Your task to perform on an android device: Go to privacy settings Image 0: 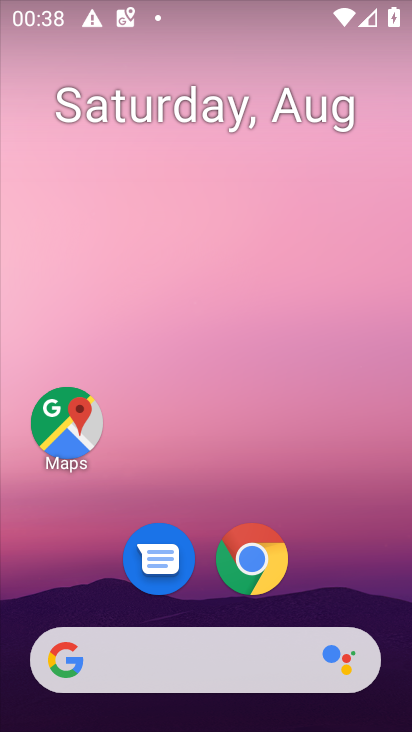
Step 0: drag from (371, 609) to (258, 42)
Your task to perform on an android device: Go to privacy settings Image 1: 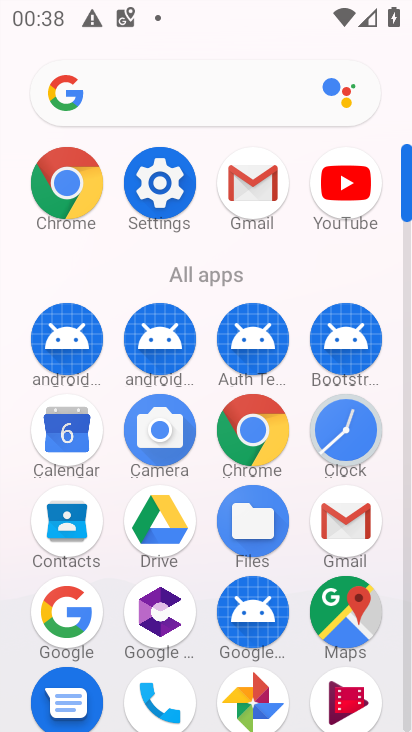
Step 1: click (155, 197)
Your task to perform on an android device: Go to privacy settings Image 2: 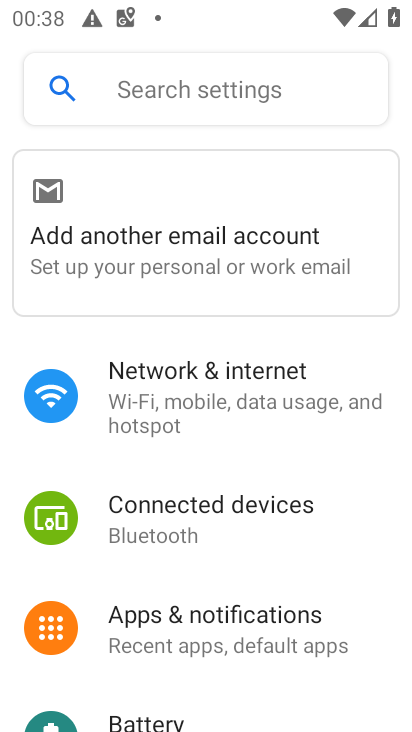
Step 2: drag from (321, 699) to (208, 34)
Your task to perform on an android device: Go to privacy settings Image 3: 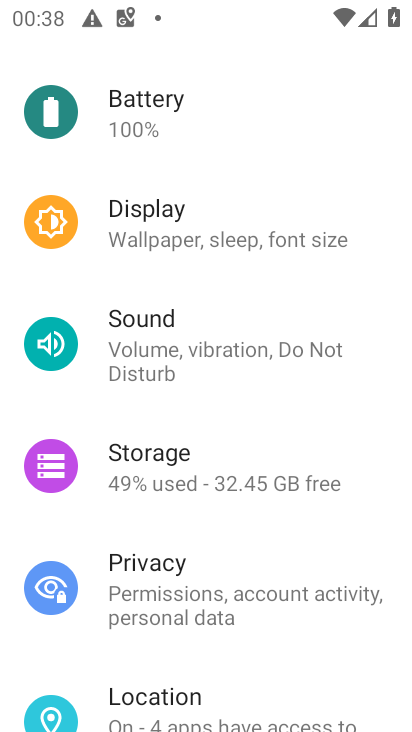
Step 3: click (296, 587)
Your task to perform on an android device: Go to privacy settings Image 4: 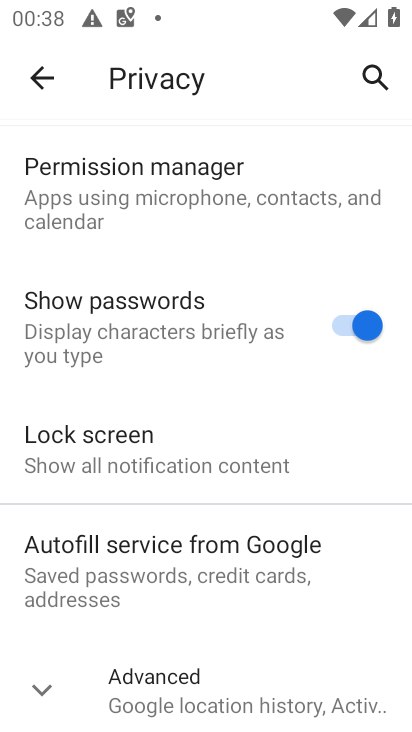
Step 4: task complete